Your task to perform on an android device: find photos in the google photos app Image 0: 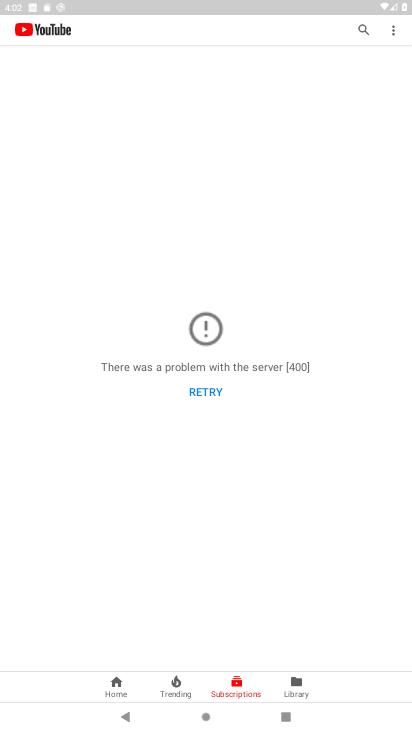
Step 0: press home button
Your task to perform on an android device: find photos in the google photos app Image 1: 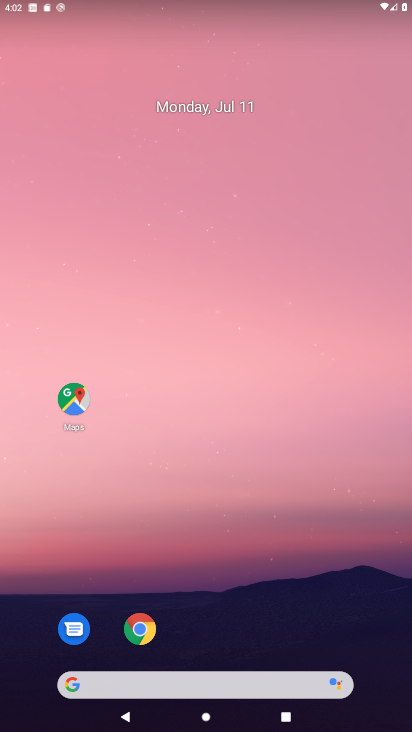
Step 1: drag from (387, 697) to (352, 69)
Your task to perform on an android device: find photos in the google photos app Image 2: 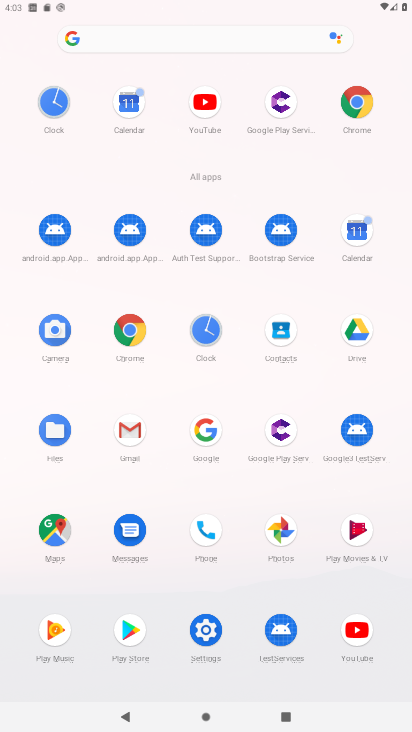
Step 2: click (271, 531)
Your task to perform on an android device: find photos in the google photos app Image 3: 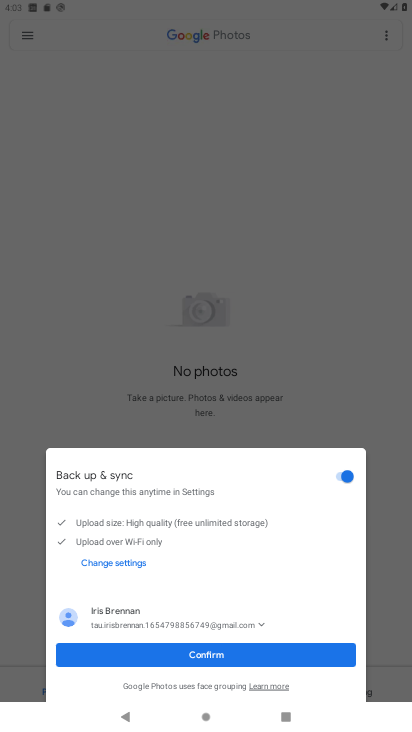
Step 3: click (207, 657)
Your task to perform on an android device: find photos in the google photos app Image 4: 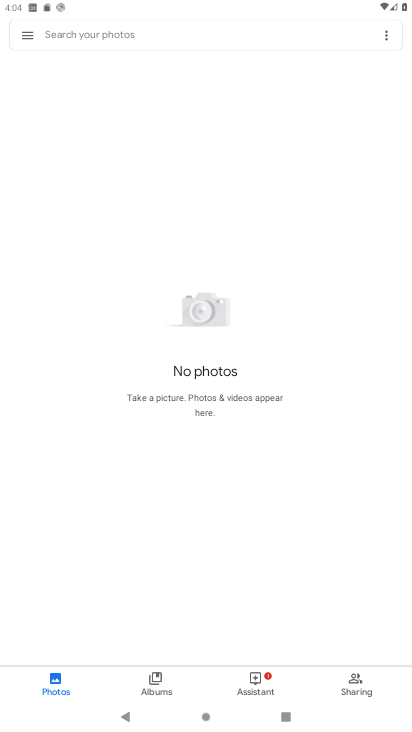
Step 4: task complete